Your task to perform on an android device: find photos in the google photos app Image 0: 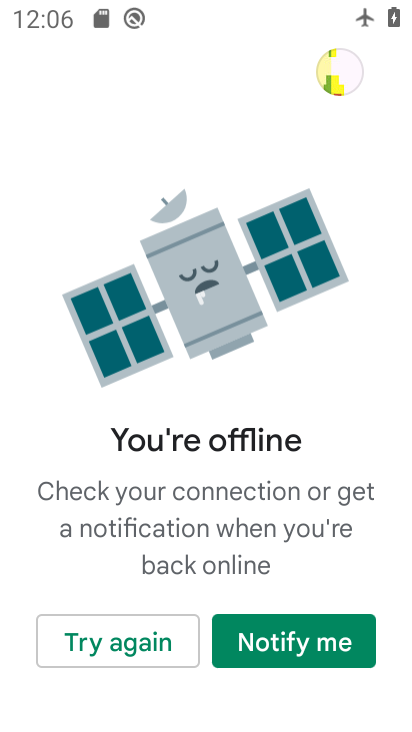
Step 0: press home button
Your task to perform on an android device: find photos in the google photos app Image 1: 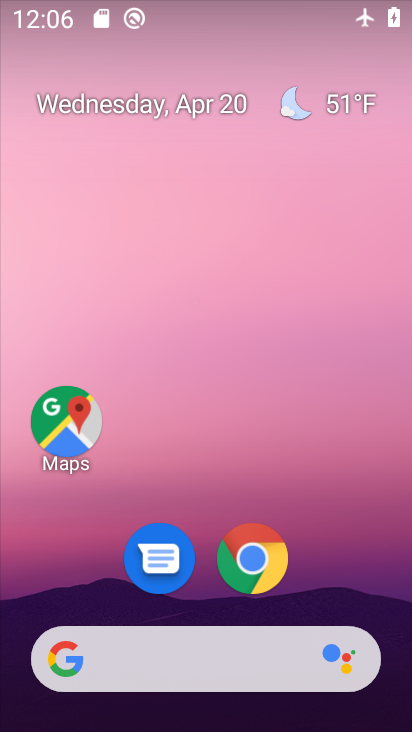
Step 1: drag from (381, 613) to (319, 94)
Your task to perform on an android device: find photos in the google photos app Image 2: 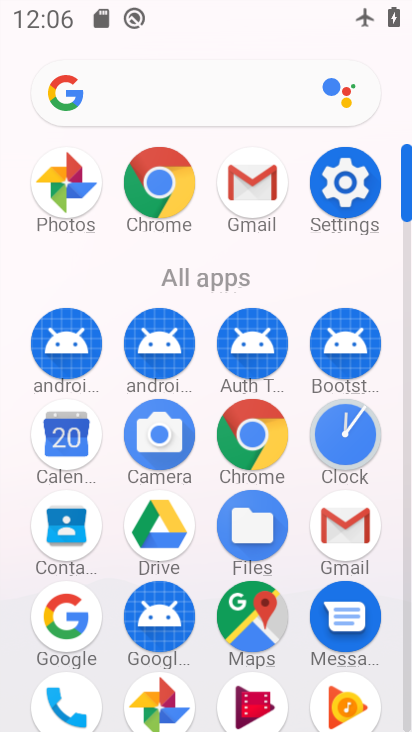
Step 2: click (407, 697)
Your task to perform on an android device: find photos in the google photos app Image 3: 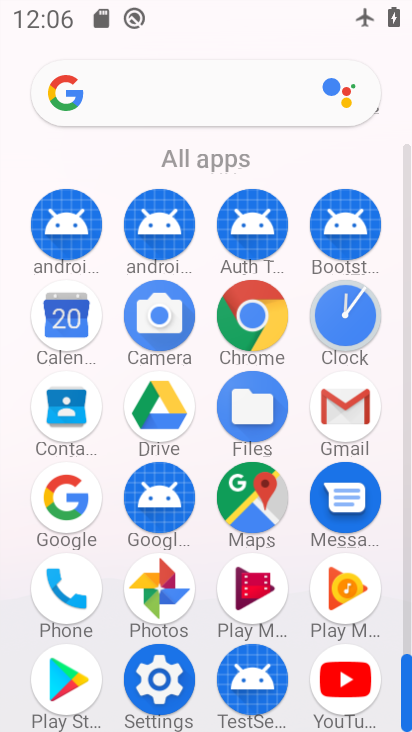
Step 3: click (158, 587)
Your task to perform on an android device: find photos in the google photos app Image 4: 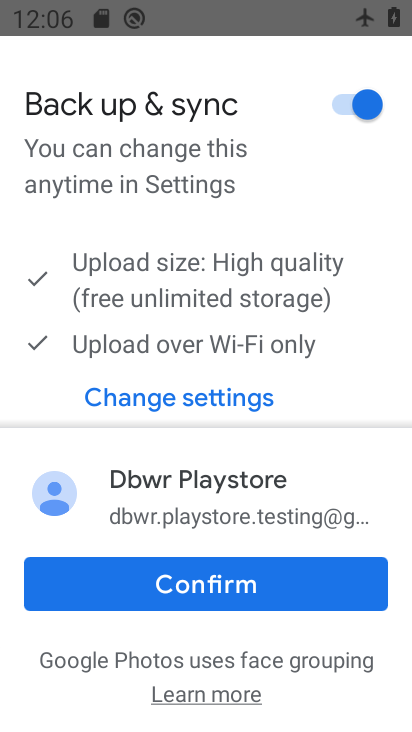
Step 4: click (194, 578)
Your task to perform on an android device: find photos in the google photos app Image 5: 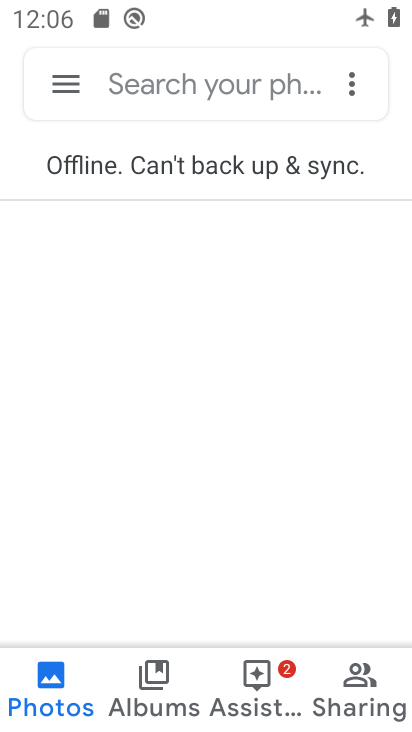
Step 5: click (173, 692)
Your task to perform on an android device: find photos in the google photos app Image 6: 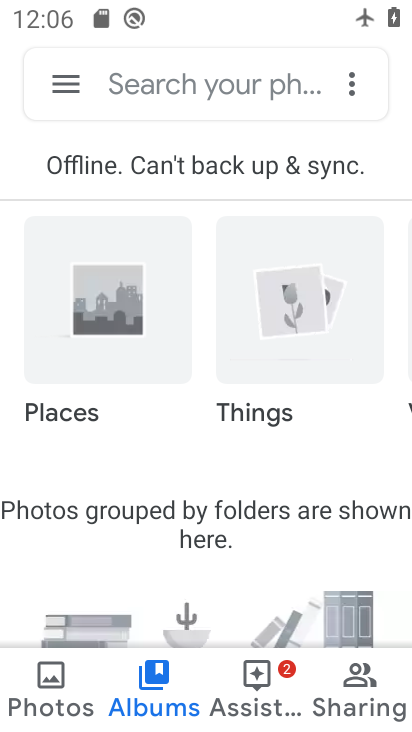
Step 6: task complete